Your task to perform on an android device: change notification settings in the gmail app Image 0: 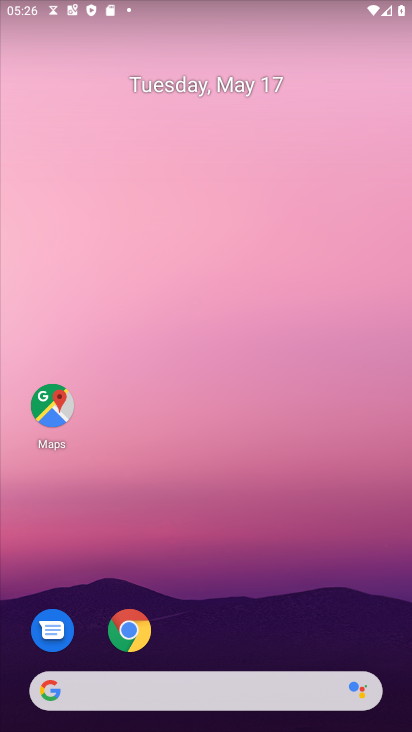
Step 0: drag from (266, 567) to (199, 237)
Your task to perform on an android device: change notification settings in the gmail app Image 1: 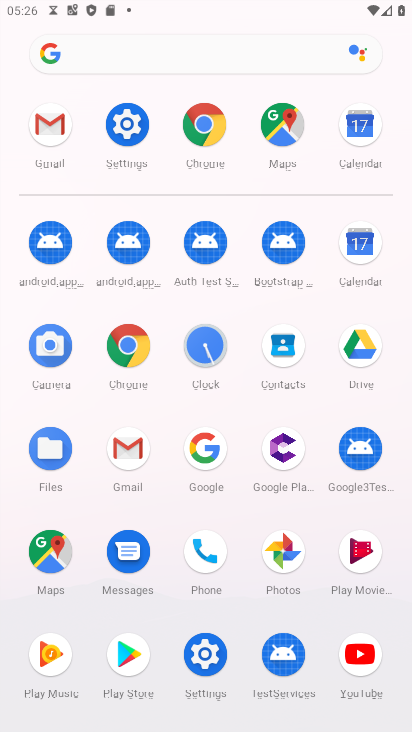
Step 1: click (139, 439)
Your task to perform on an android device: change notification settings in the gmail app Image 2: 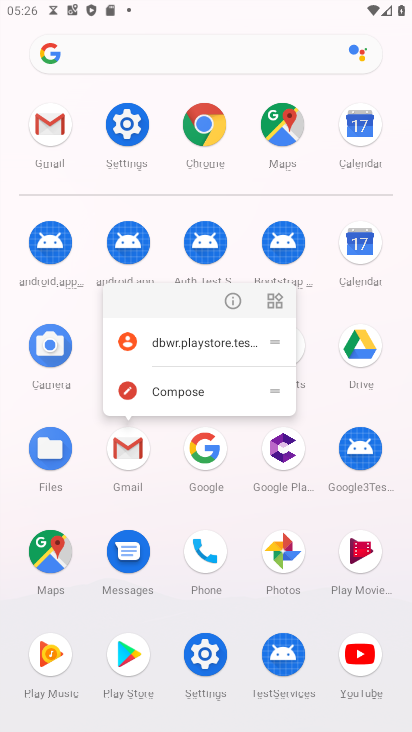
Step 2: click (238, 301)
Your task to perform on an android device: change notification settings in the gmail app Image 3: 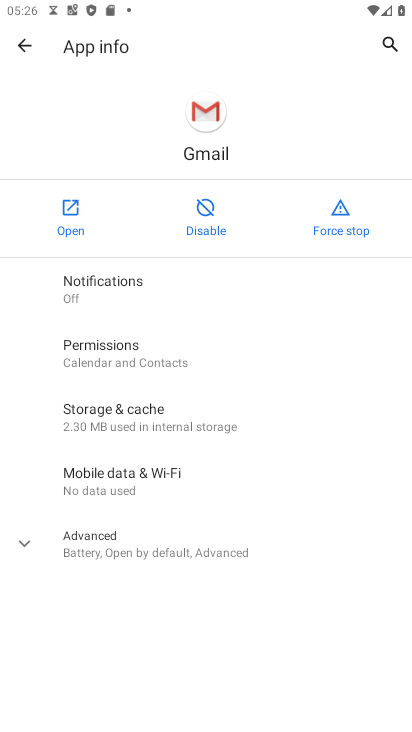
Step 3: click (82, 291)
Your task to perform on an android device: change notification settings in the gmail app Image 4: 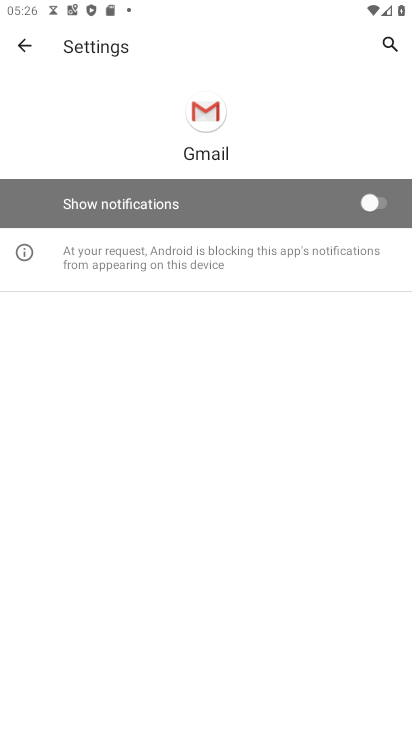
Step 4: click (361, 195)
Your task to perform on an android device: change notification settings in the gmail app Image 5: 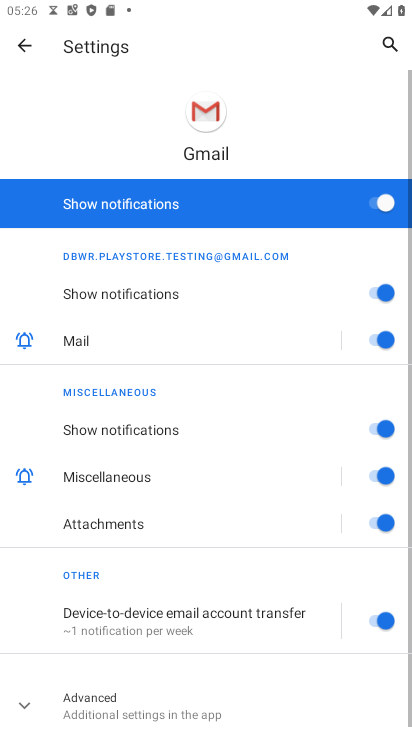
Step 5: task complete